Your task to perform on an android device: toggle show notifications on the lock screen Image 0: 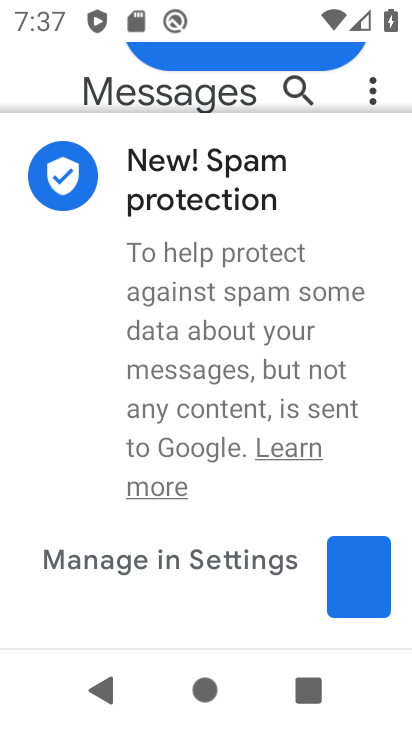
Step 0: press back button
Your task to perform on an android device: toggle show notifications on the lock screen Image 1: 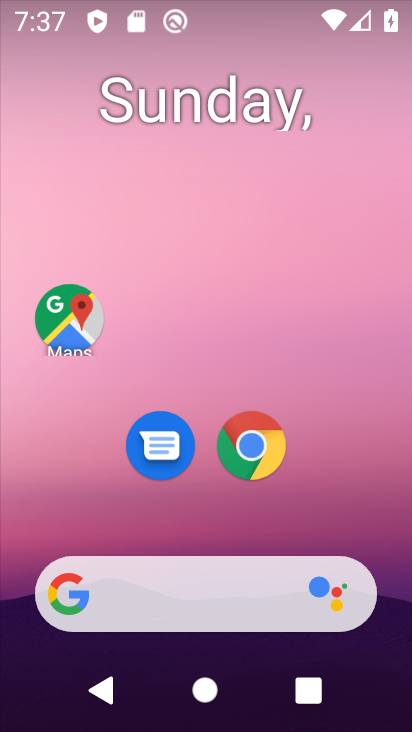
Step 1: drag from (304, 448) to (228, 25)
Your task to perform on an android device: toggle show notifications on the lock screen Image 2: 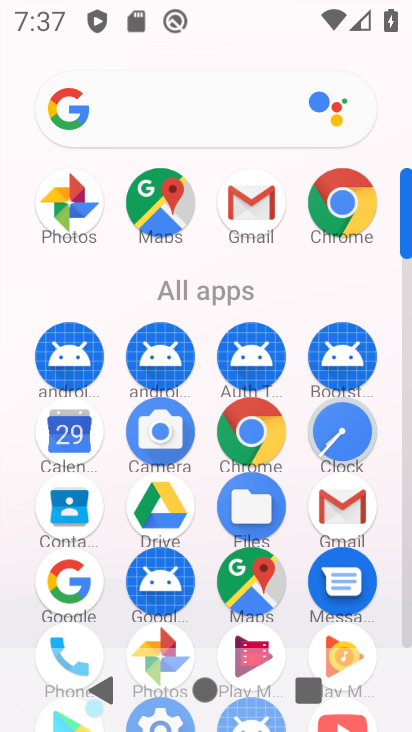
Step 2: drag from (2, 536) to (7, 227)
Your task to perform on an android device: toggle show notifications on the lock screen Image 3: 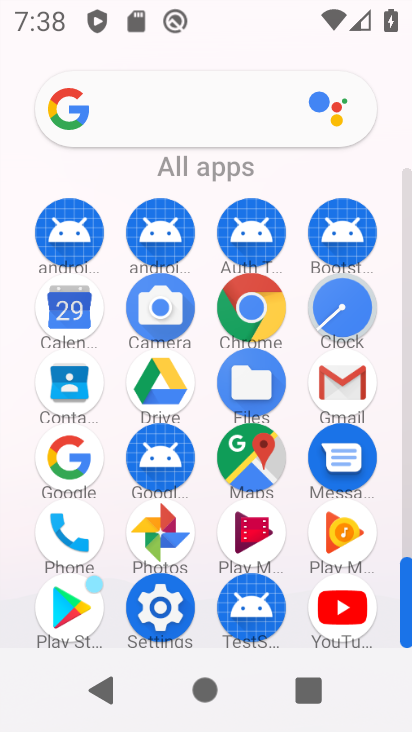
Step 3: click (162, 605)
Your task to perform on an android device: toggle show notifications on the lock screen Image 4: 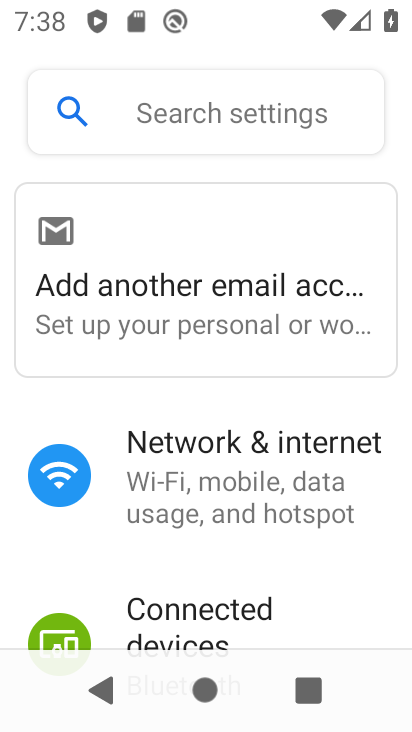
Step 4: drag from (9, 597) to (11, 254)
Your task to perform on an android device: toggle show notifications on the lock screen Image 5: 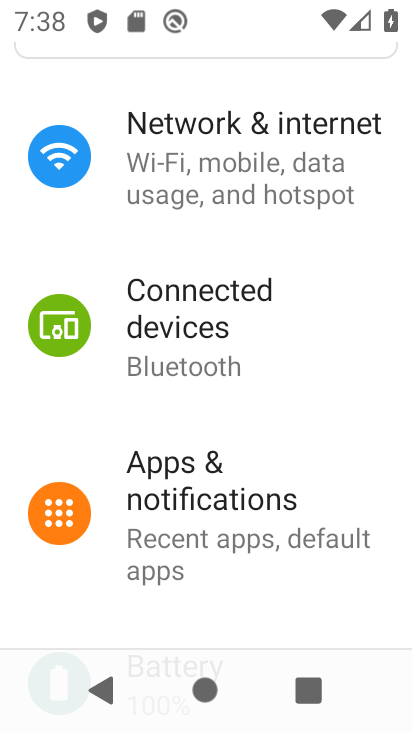
Step 5: click (158, 493)
Your task to perform on an android device: toggle show notifications on the lock screen Image 6: 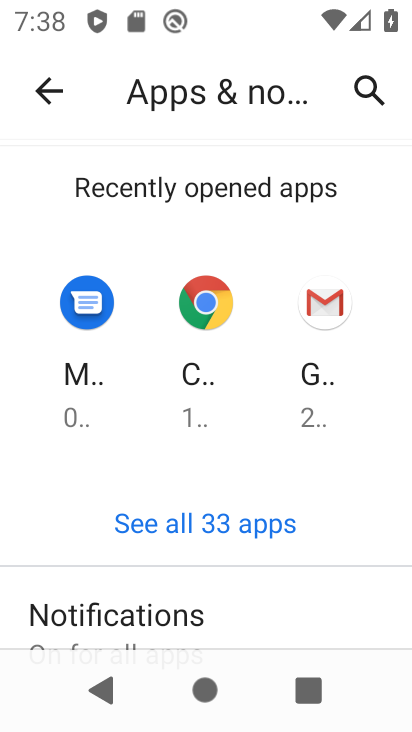
Step 6: drag from (28, 532) to (14, 104)
Your task to perform on an android device: toggle show notifications on the lock screen Image 7: 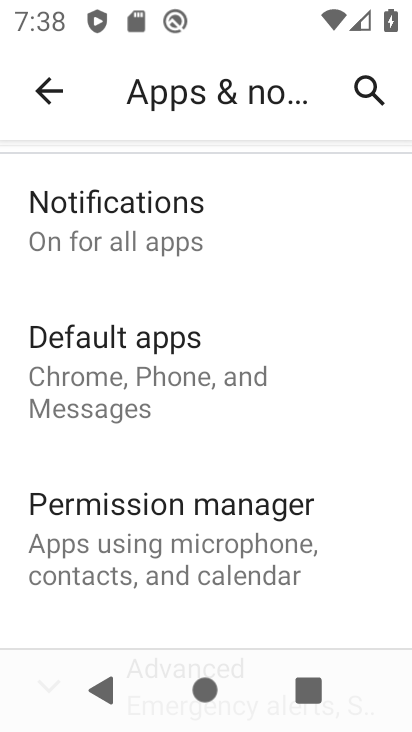
Step 7: click (177, 216)
Your task to perform on an android device: toggle show notifications on the lock screen Image 8: 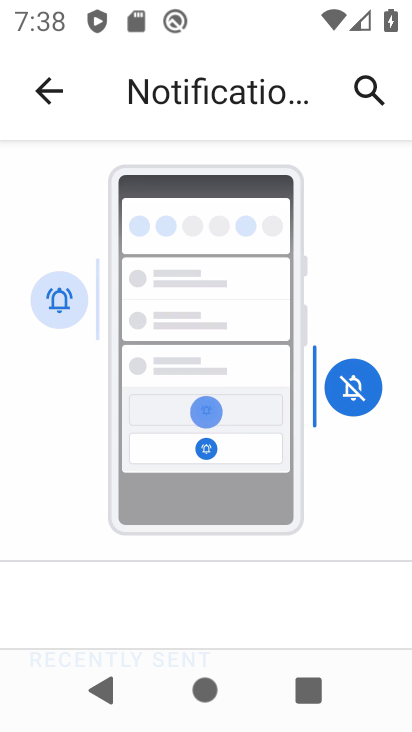
Step 8: drag from (68, 507) to (31, 141)
Your task to perform on an android device: toggle show notifications on the lock screen Image 9: 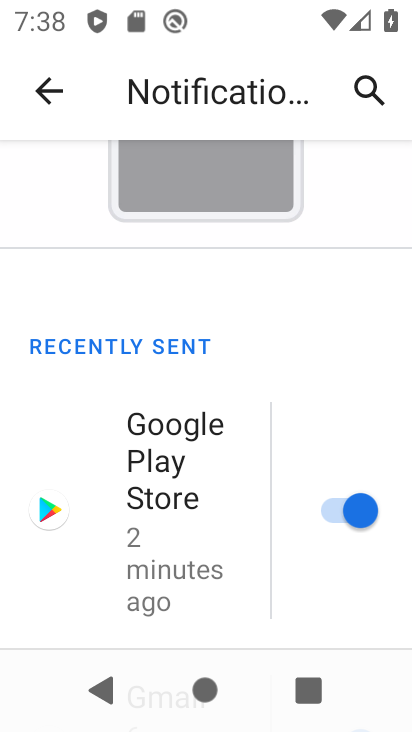
Step 9: drag from (16, 450) to (10, 141)
Your task to perform on an android device: toggle show notifications on the lock screen Image 10: 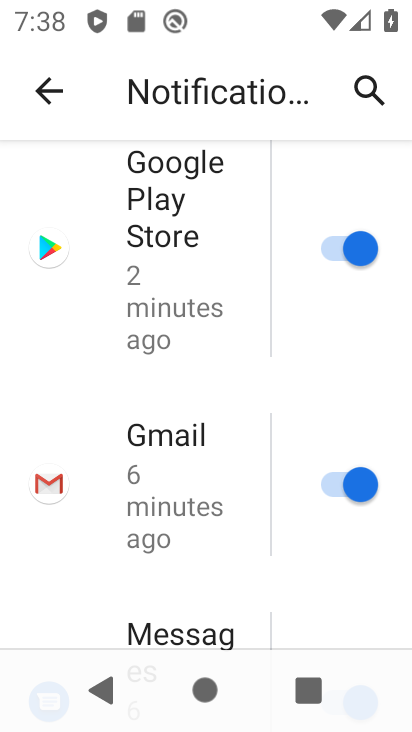
Step 10: drag from (17, 587) to (3, 167)
Your task to perform on an android device: toggle show notifications on the lock screen Image 11: 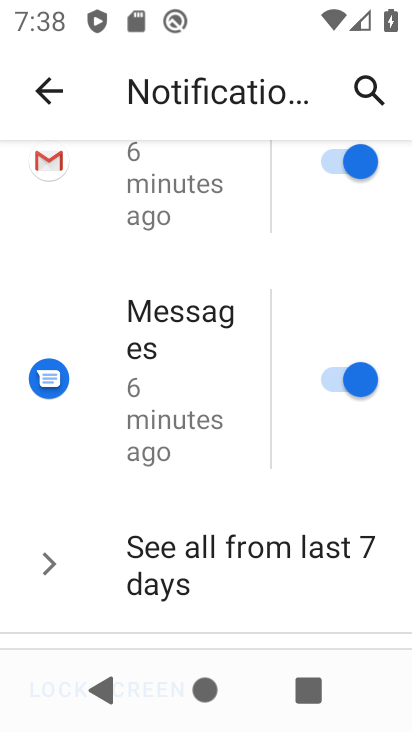
Step 11: drag from (8, 581) to (19, 183)
Your task to perform on an android device: toggle show notifications on the lock screen Image 12: 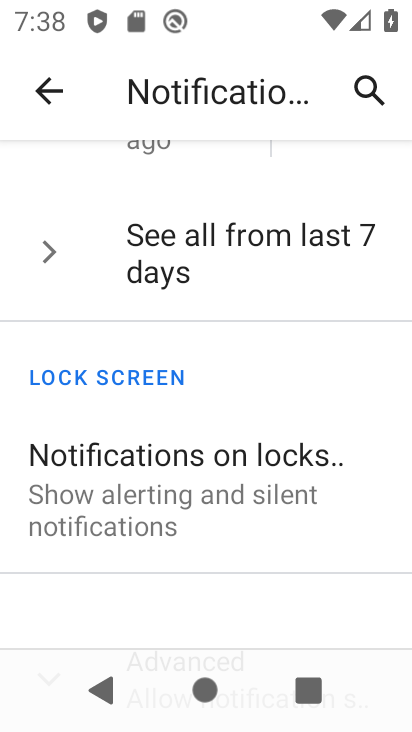
Step 12: drag from (27, 473) to (16, 195)
Your task to perform on an android device: toggle show notifications on the lock screen Image 13: 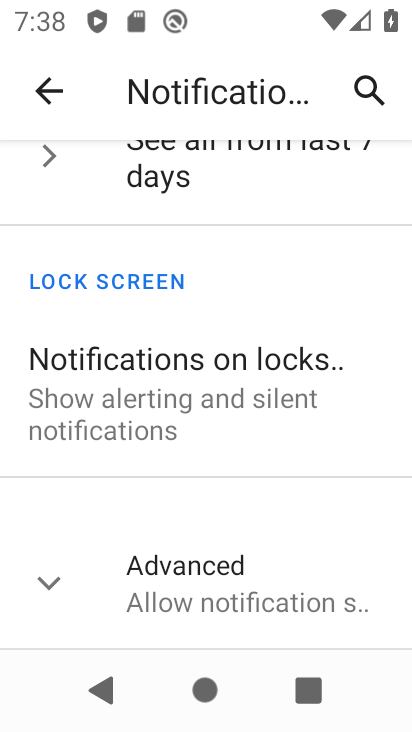
Step 13: click (37, 571)
Your task to perform on an android device: toggle show notifications on the lock screen Image 14: 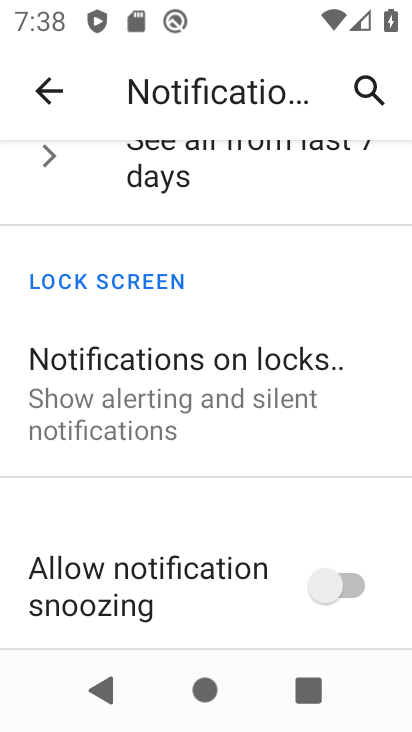
Step 14: click (152, 363)
Your task to perform on an android device: toggle show notifications on the lock screen Image 15: 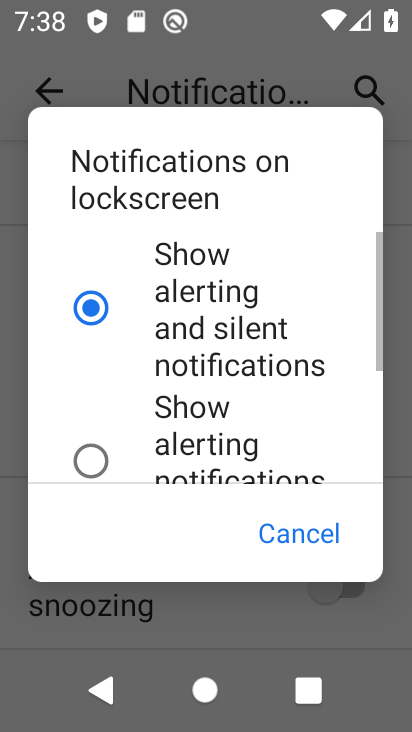
Step 15: click (161, 292)
Your task to perform on an android device: toggle show notifications on the lock screen Image 16: 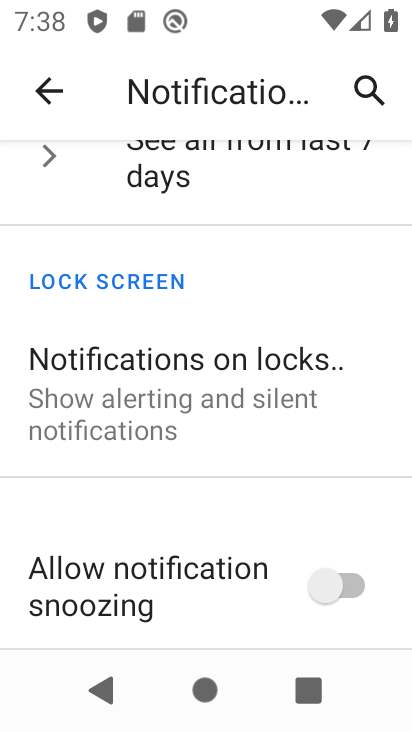
Step 16: task complete